Your task to perform on an android device: turn on translation in the chrome app Image 0: 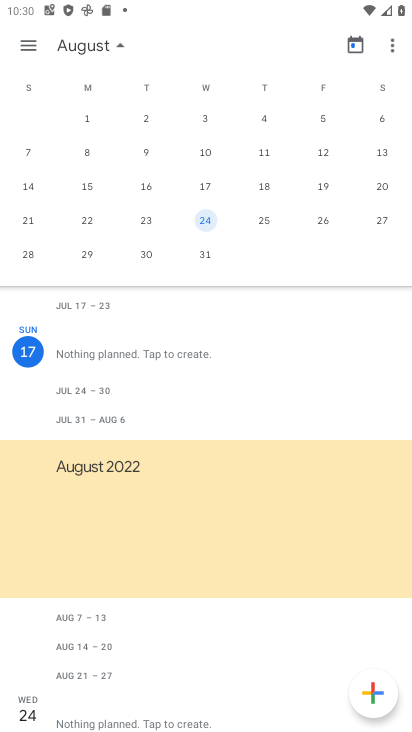
Step 0: task complete